Your task to perform on an android device: find which apps use the phone's location Image 0: 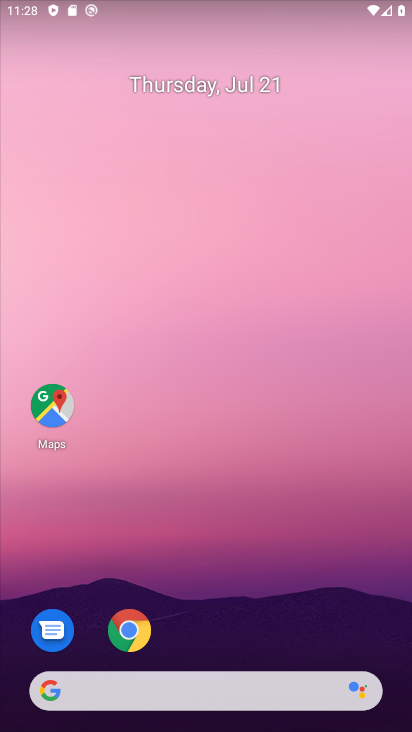
Step 0: press home button
Your task to perform on an android device: find which apps use the phone's location Image 1: 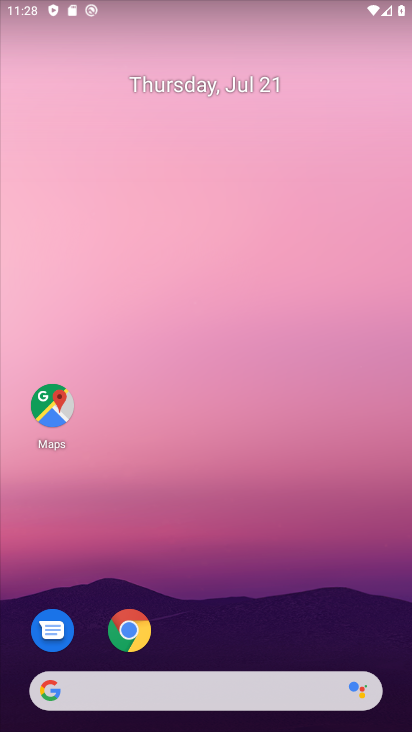
Step 1: drag from (280, 637) to (217, 101)
Your task to perform on an android device: find which apps use the phone's location Image 2: 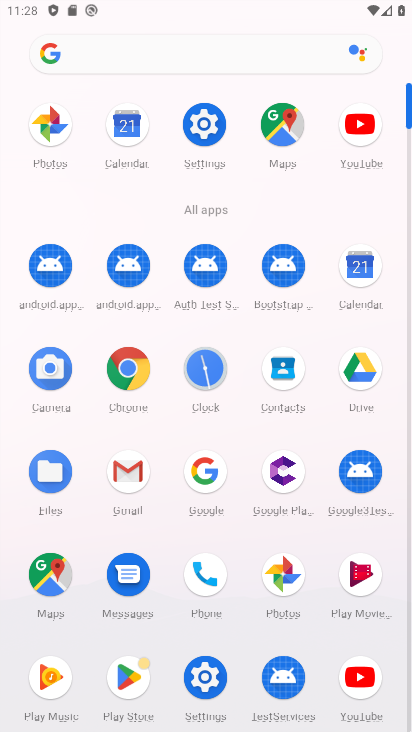
Step 2: click (205, 126)
Your task to perform on an android device: find which apps use the phone's location Image 3: 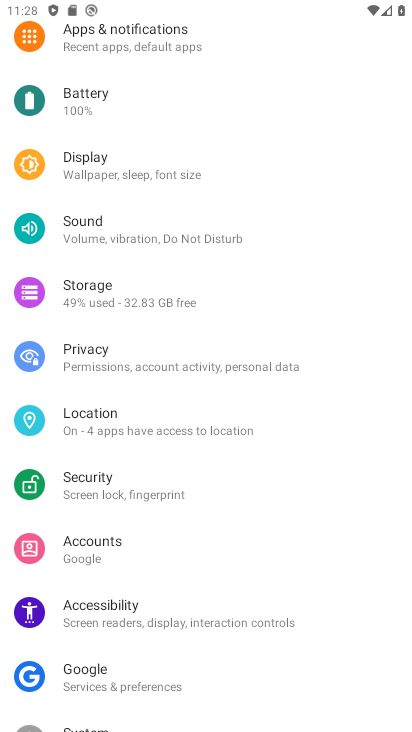
Step 3: click (119, 420)
Your task to perform on an android device: find which apps use the phone's location Image 4: 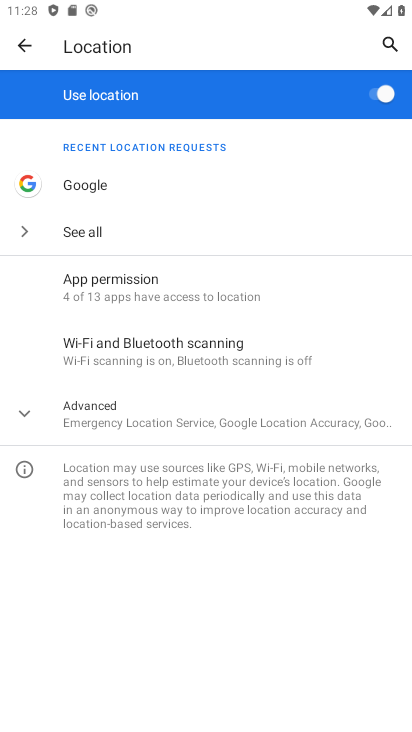
Step 4: click (121, 280)
Your task to perform on an android device: find which apps use the phone's location Image 5: 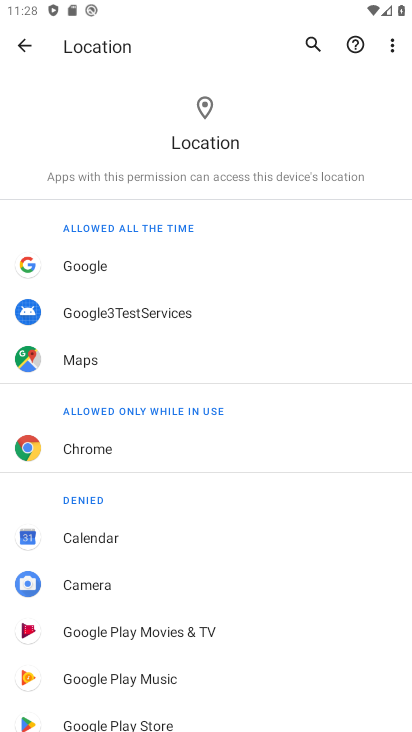
Step 5: task complete